Your task to perform on an android device: Open location settings Image 0: 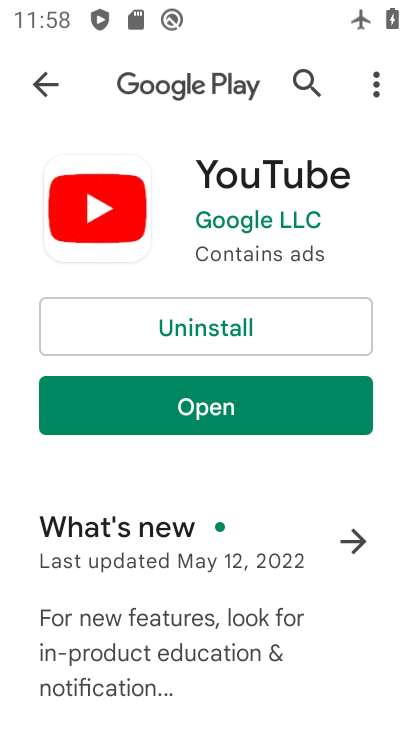
Step 0: click (52, 73)
Your task to perform on an android device: Open location settings Image 1: 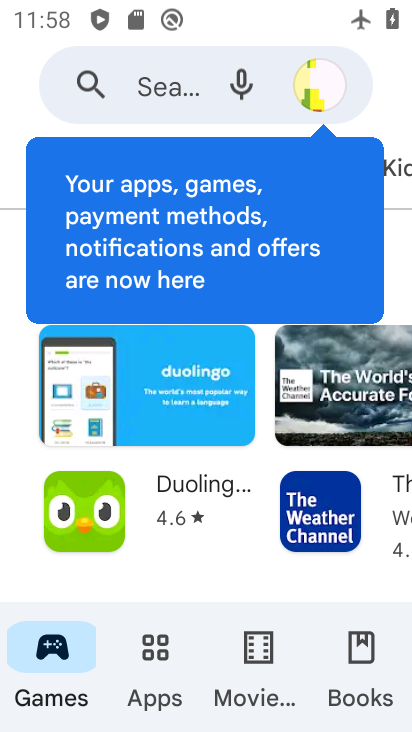
Step 1: press home button
Your task to perform on an android device: Open location settings Image 2: 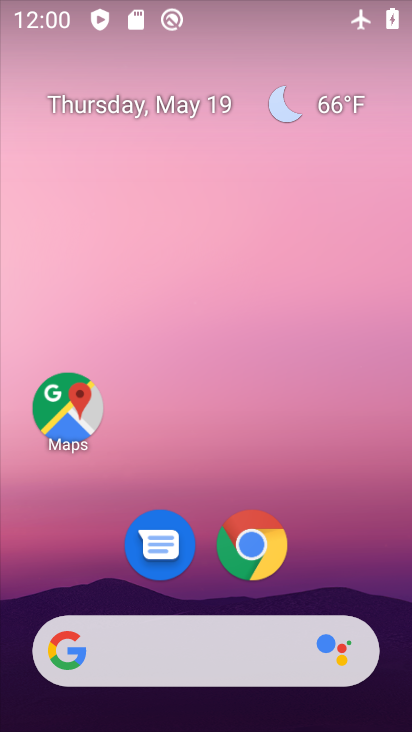
Step 2: drag from (216, 690) to (317, 10)
Your task to perform on an android device: Open location settings Image 3: 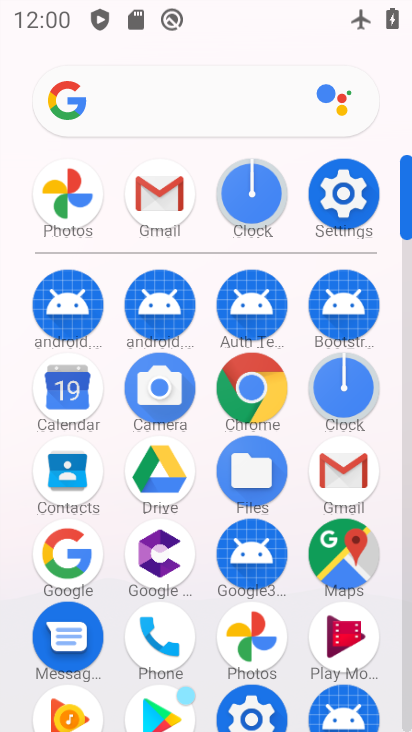
Step 3: click (363, 191)
Your task to perform on an android device: Open location settings Image 4: 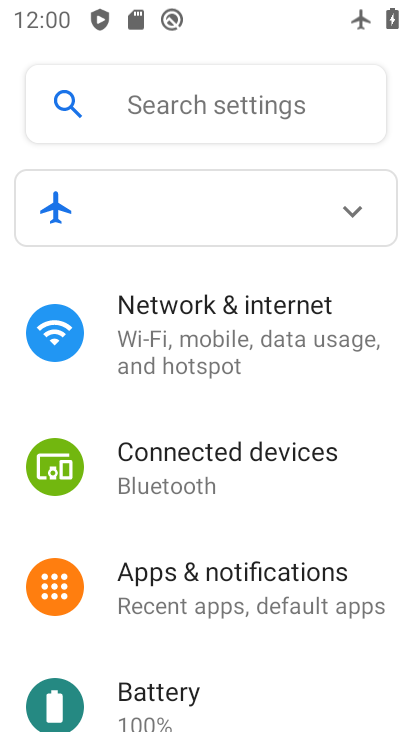
Step 4: drag from (252, 688) to (240, 111)
Your task to perform on an android device: Open location settings Image 5: 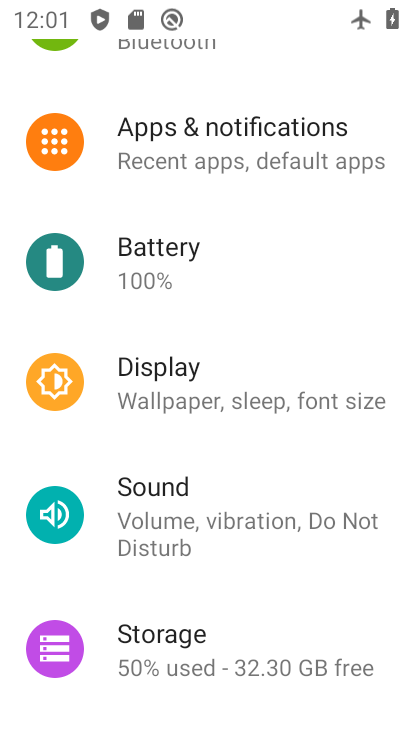
Step 5: drag from (273, 723) to (373, 88)
Your task to perform on an android device: Open location settings Image 6: 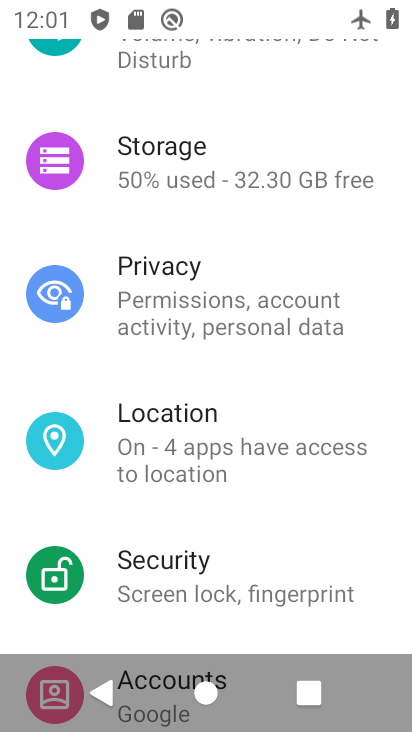
Step 6: click (211, 421)
Your task to perform on an android device: Open location settings Image 7: 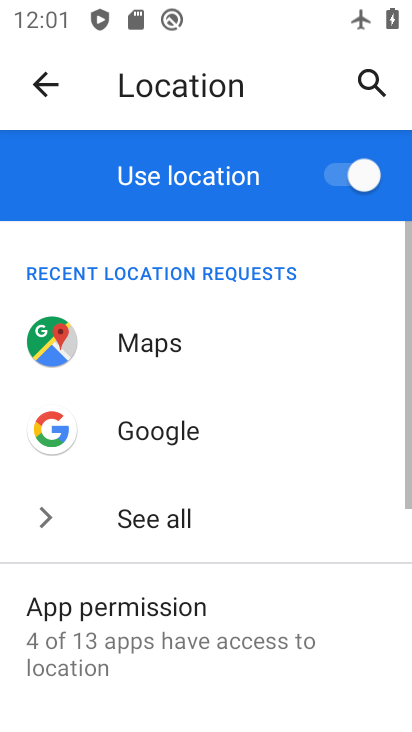
Step 7: task complete